Your task to perform on an android device: check storage Image 0: 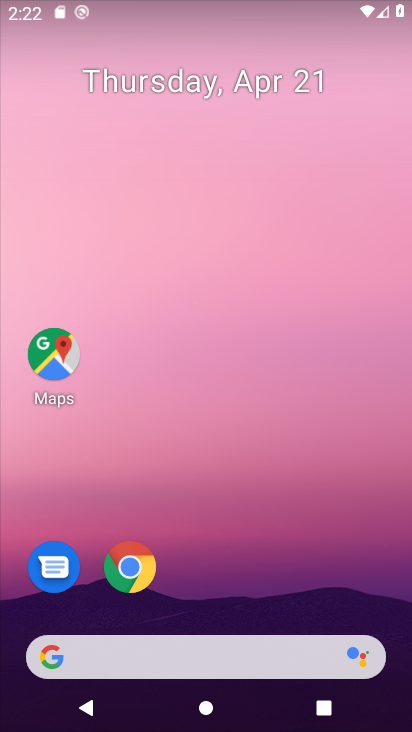
Step 0: drag from (353, 580) to (234, 11)
Your task to perform on an android device: check storage Image 1: 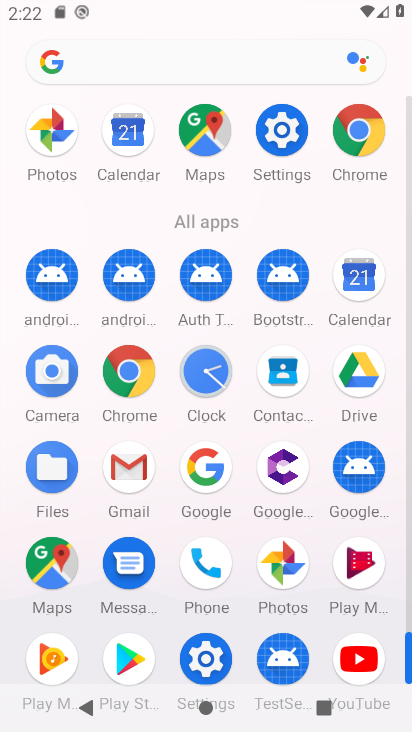
Step 1: drag from (10, 562) to (10, 342)
Your task to perform on an android device: check storage Image 2: 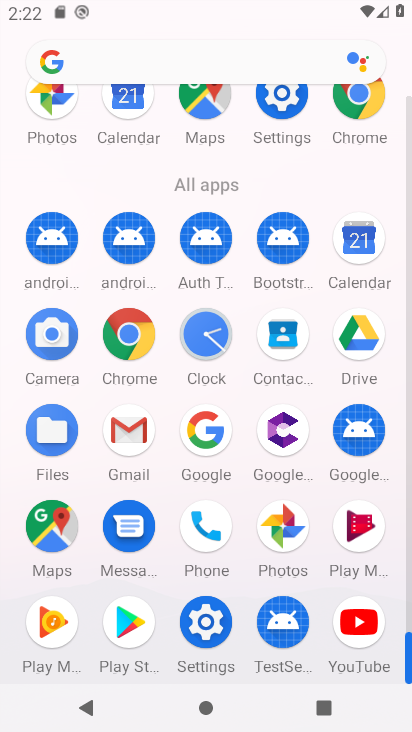
Step 2: click (204, 620)
Your task to perform on an android device: check storage Image 3: 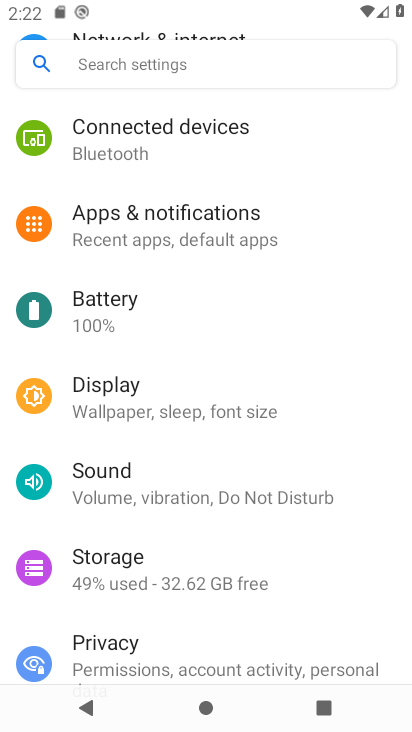
Step 3: drag from (278, 156) to (262, 590)
Your task to perform on an android device: check storage Image 4: 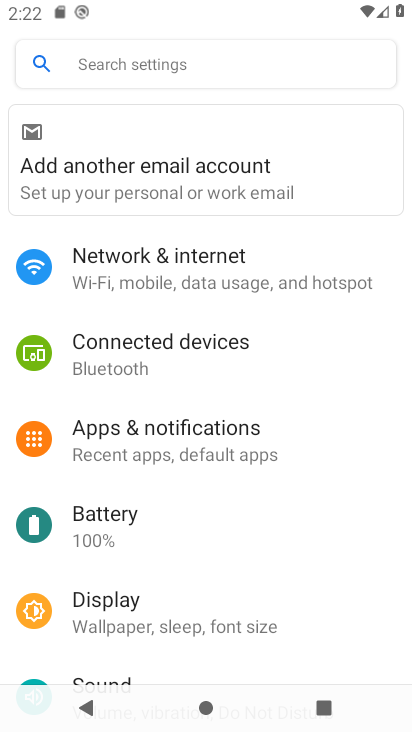
Step 4: drag from (256, 576) to (292, 264)
Your task to perform on an android device: check storage Image 5: 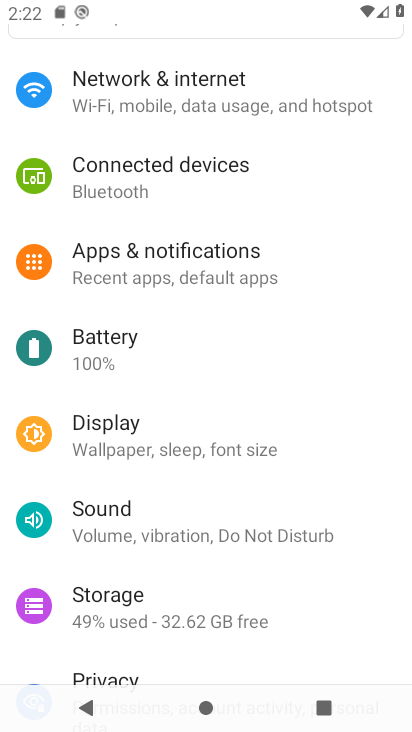
Step 5: drag from (253, 546) to (281, 148)
Your task to perform on an android device: check storage Image 6: 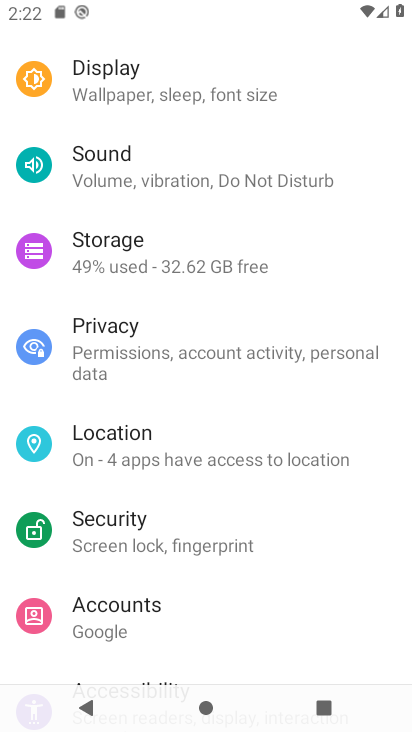
Step 6: drag from (260, 488) to (287, 129)
Your task to perform on an android device: check storage Image 7: 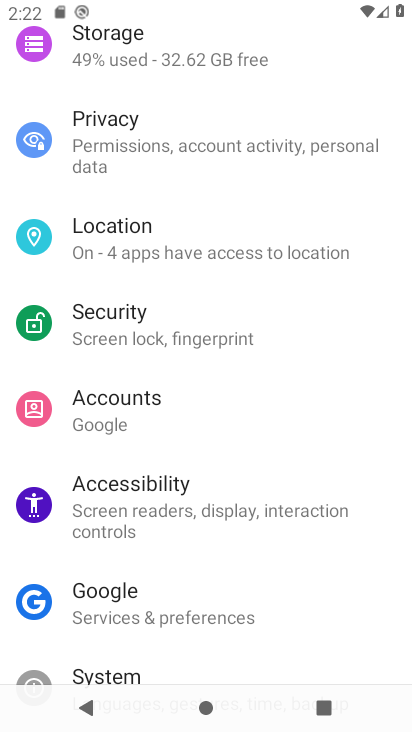
Step 7: drag from (283, 558) to (281, 136)
Your task to perform on an android device: check storage Image 8: 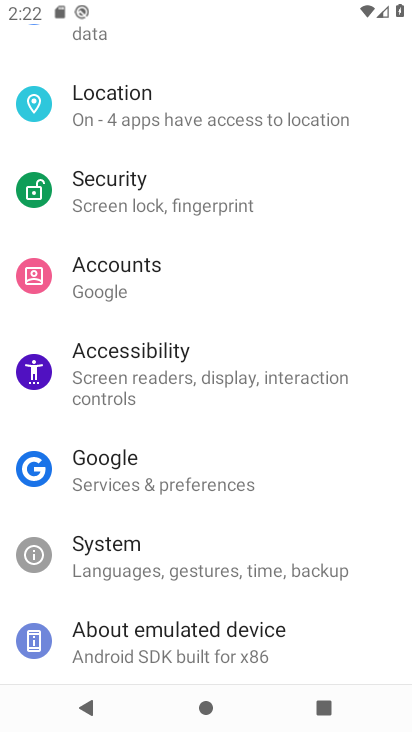
Step 8: drag from (259, 221) to (222, 562)
Your task to perform on an android device: check storage Image 9: 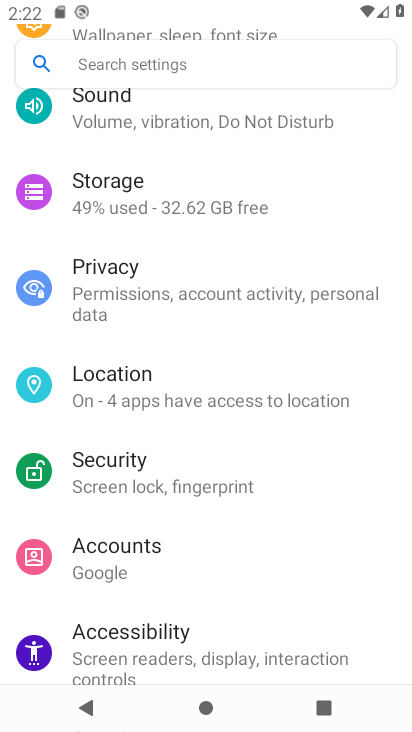
Step 9: click (142, 185)
Your task to perform on an android device: check storage Image 10: 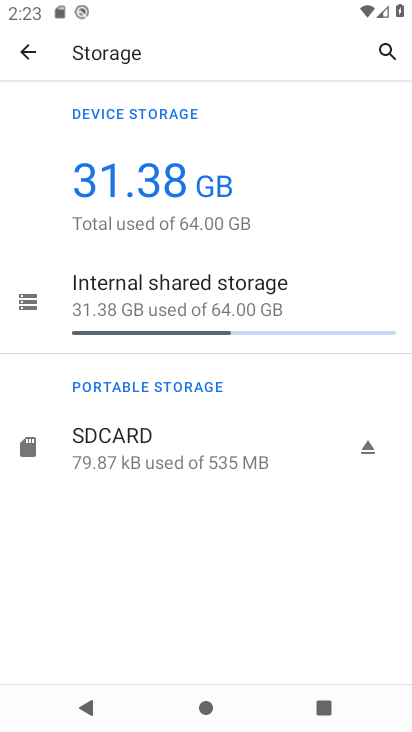
Step 10: task complete